Your task to perform on an android device: What's on my calendar today? Image 0: 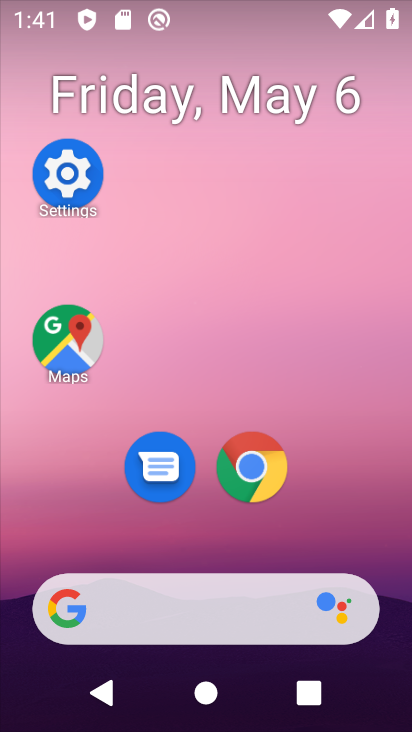
Step 0: drag from (301, 539) to (244, 27)
Your task to perform on an android device: What's on my calendar today? Image 1: 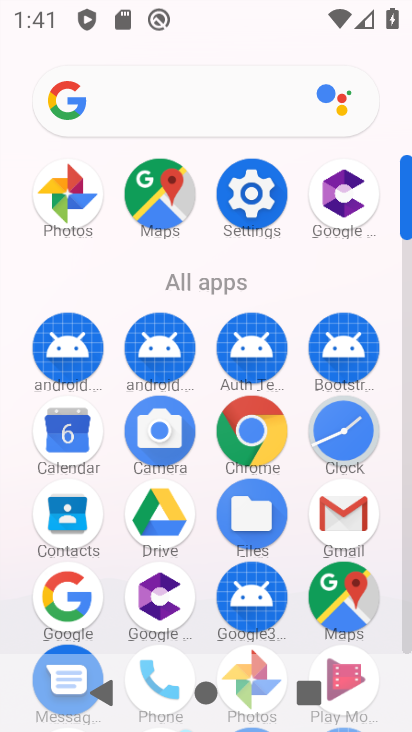
Step 1: drag from (206, 527) to (188, 150)
Your task to perform on an android device: What's on my calendar today? Image 2: 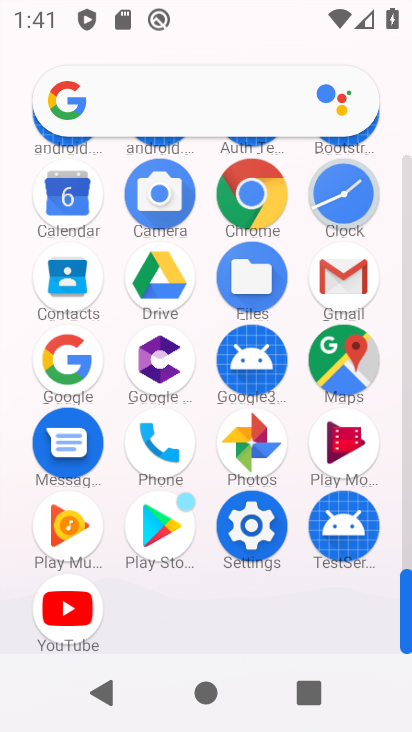
Step 2: drag from (65, 213) to (176, 209)
Your task to perform on an android device: What's on my calendar today? Image 3: 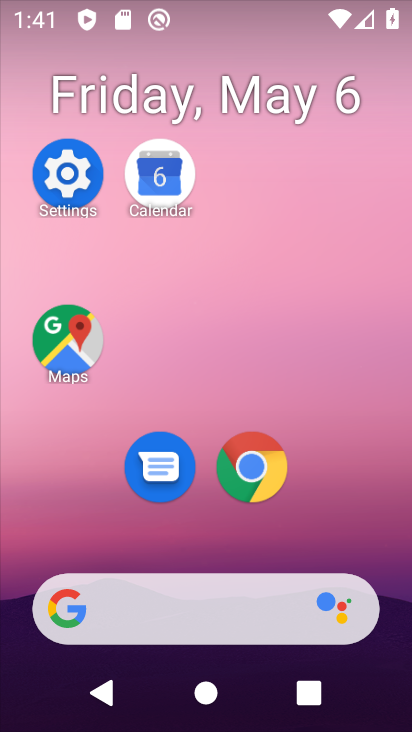
Step 3: click (163, 184)
Your task to perform on an android device: What's on my calendar today? Image 4: 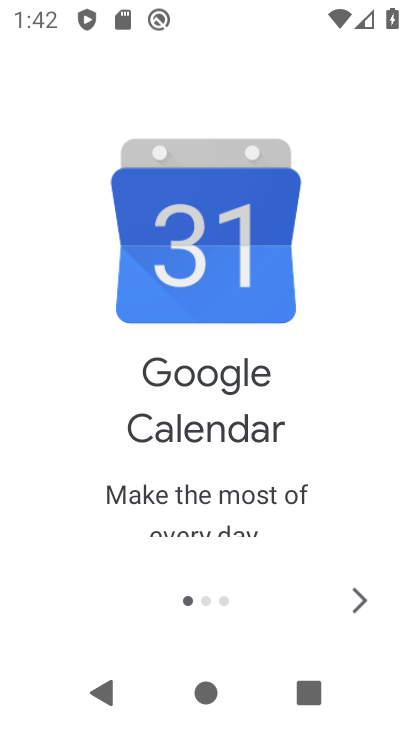
Step 4: click (364, 612)
Your task to perform on an android device: What's on my calendar today? Image 5: 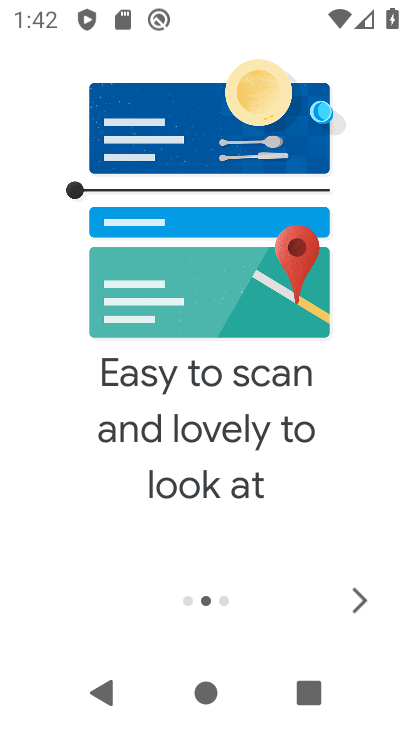
Step 5: click (364, 612)
Your task to perform on an android device: What's on my calendar today? Image 6: 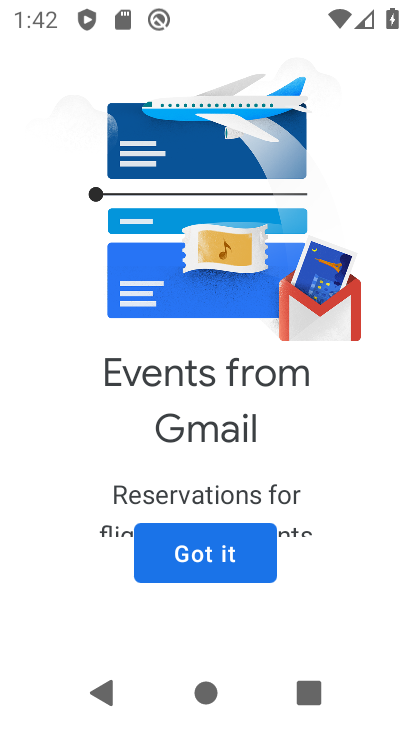
Step 6: click (368, 612)
Your task to perform on an android device: What's on my calendar today? Image 7: 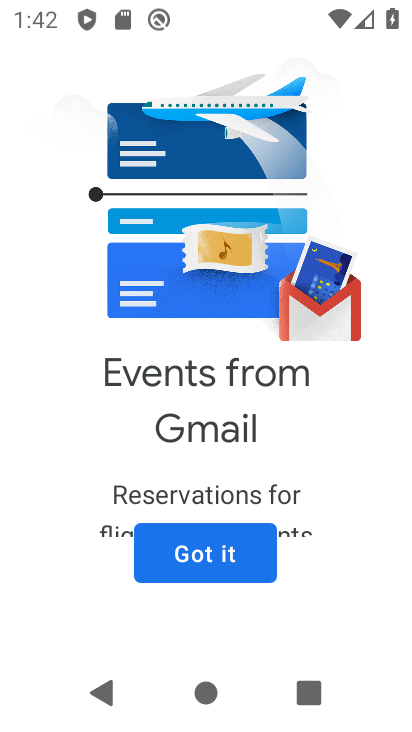
Step 7: click (216, 544)
Your task to perform on an android device: What's on my calendar today? Image 8: 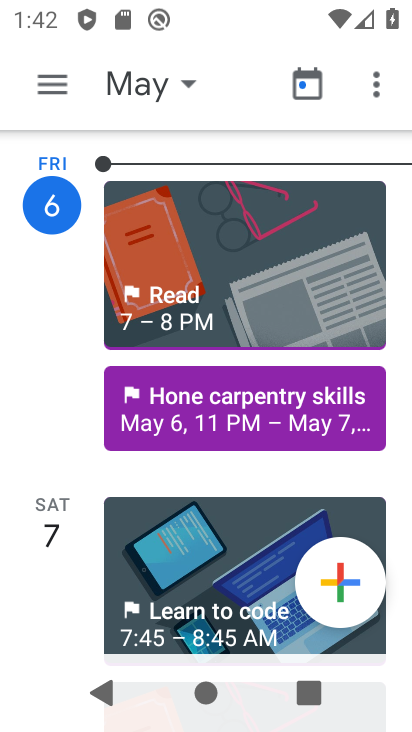
Step 8: task complete